Your task to perform on an android device: Go to ESPN.com Image 0: 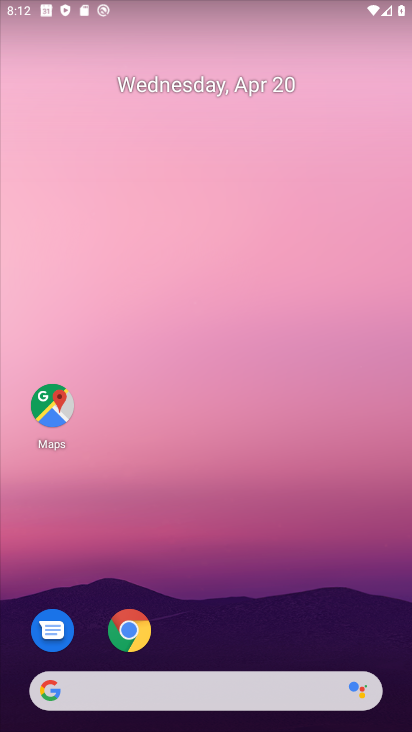
Step 0: click (129, 627)
Your task to perform on an android device: Go to ESPN.com Image 1: 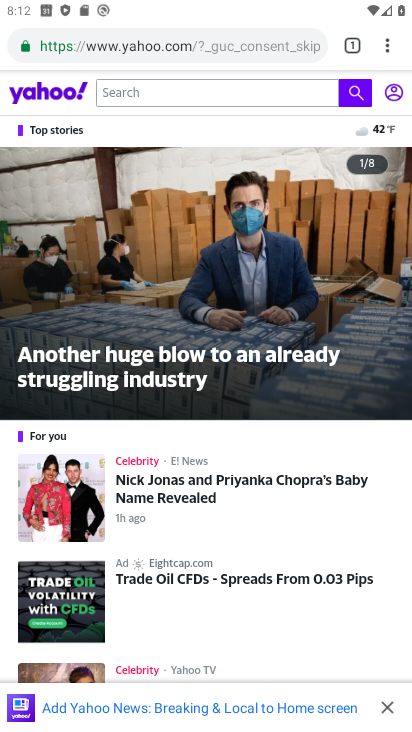
Step 1: click (358, 40)
Your task to perform on an android device: Go to ESPN.com Image 2: 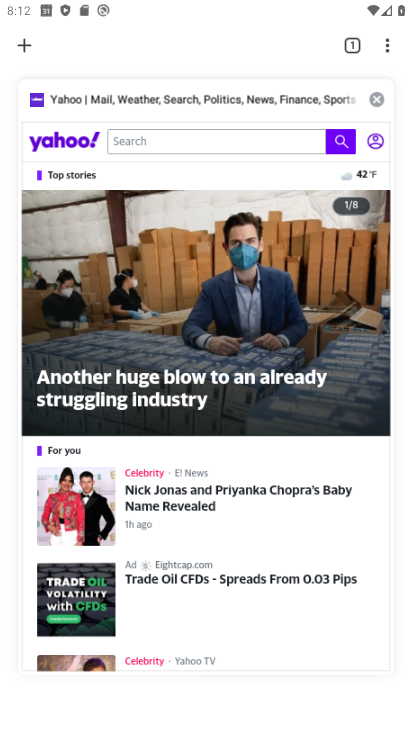
Step 2: click (29, 50)
Your task to perform on an android device: Go to ESPN.com Image 3: 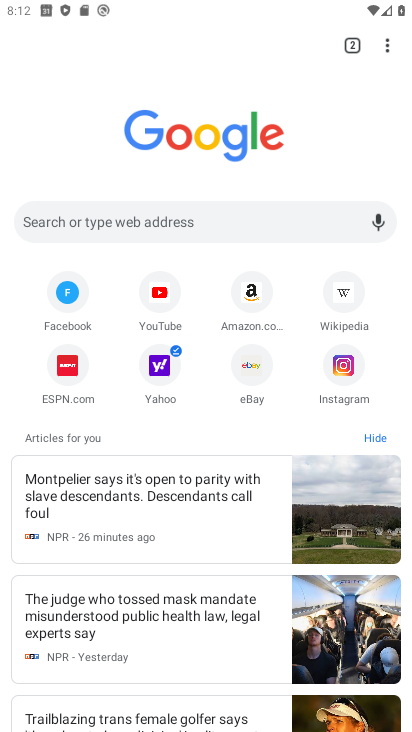
Step 3: click (67, 371)
Your task to perform on an android device: Go to ESPN.com Image 4: 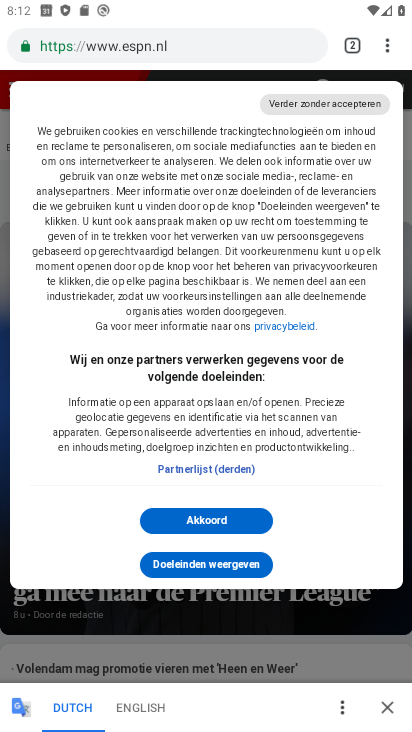
Step 4: task complete